Your task to perform on an android device: check data usage Image 0: 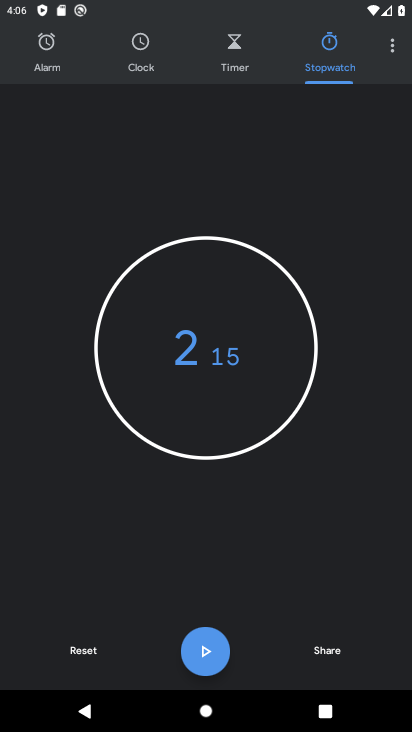
Step 0: press home button
Your task to perform on an android device: check data usage Image 1: 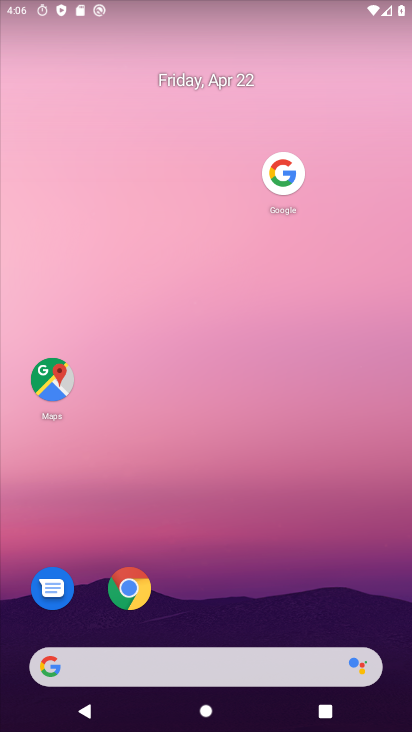
Step 1: drag from (216, 650) to (409, 108)
Your task to perform on an android device: check data usage Image 2: 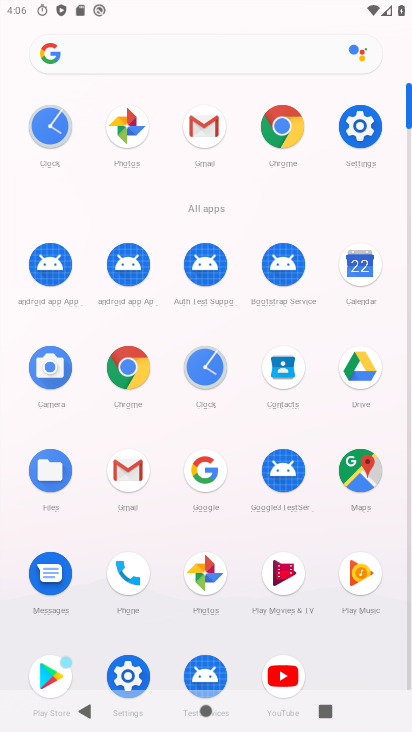
Step 2: click (372, 126)
Your task to perform on an android device: check data usage Image 3: 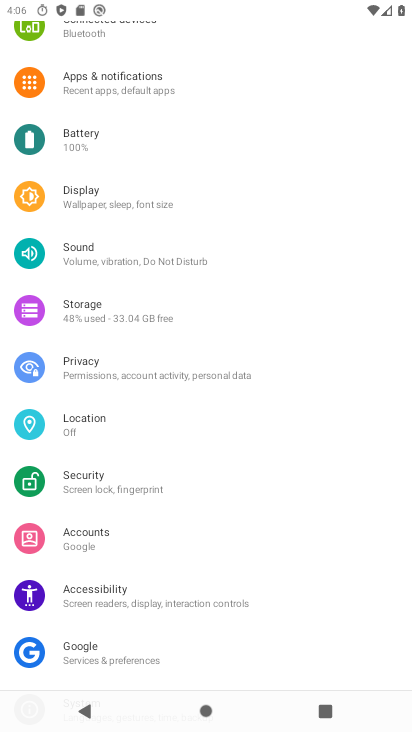
Step 3: drag from (142, 150) to (159, 548)
Your task to perform on an android device: check data usage Image 4: 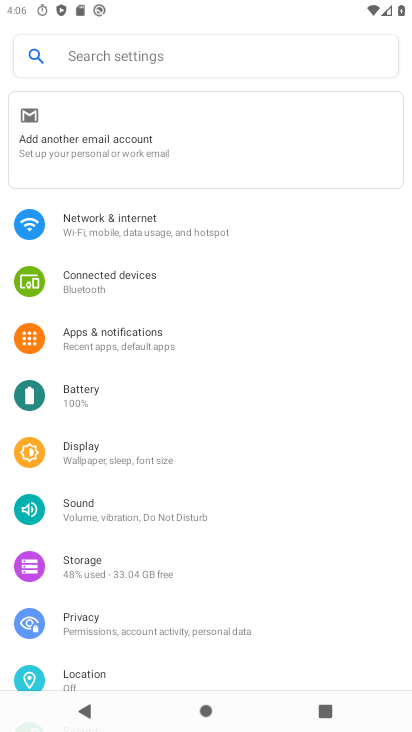
Step 4: click (131, 209)
Your task to perform on an android device: check data usage Image 5: 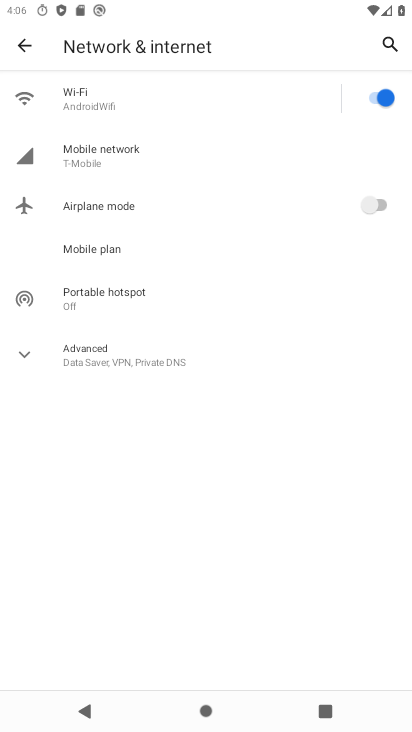
Step 5: click (110, 144)
Your task to perform on an android device: check data usage Image 6: 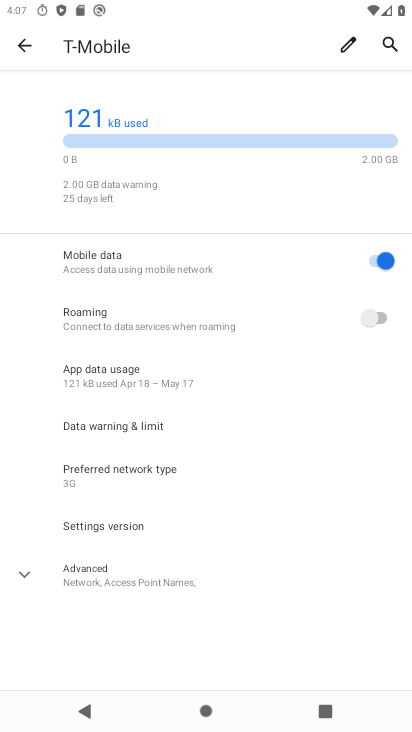
Step 6: task complete